Your task to perform on an android device: Open Google Chrome and click the shortcut for Amazon.com Image 0: 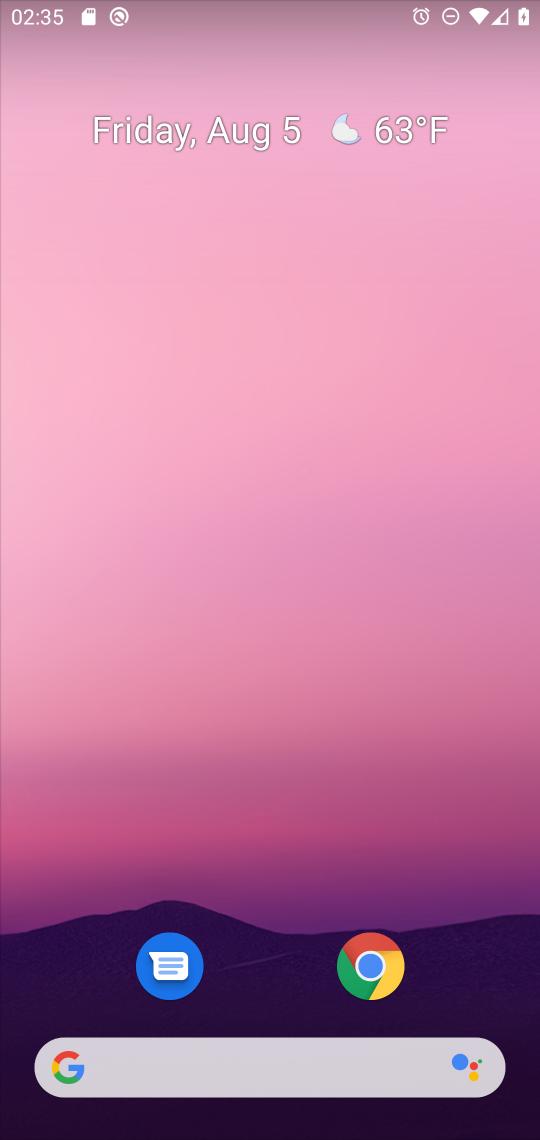
Step 0: click (362, 961)
Your task to perform on an android device: Open Google Chrome and click the shortcut for Amazon.com Image 1: 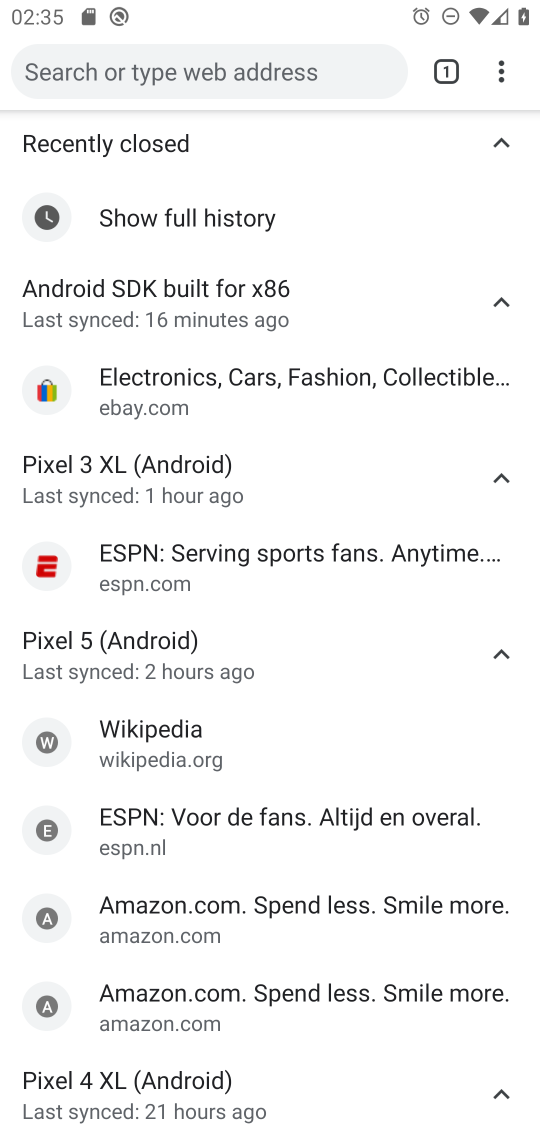
Step 1: click (501, 61)
Your task to perform on an android device: Open Google Chrome and click the shortcut for Amazon.com Image 2: 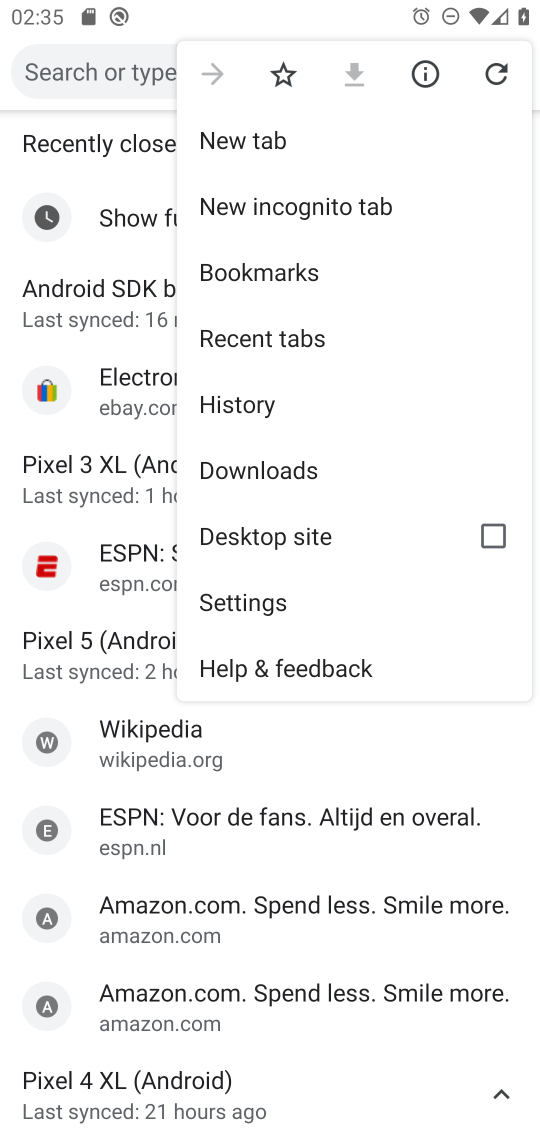
Step 2: click (317, 132)
Your task to perform on an android device: Open Google Chrome and click the shortcut for Amazon.com Image 3: 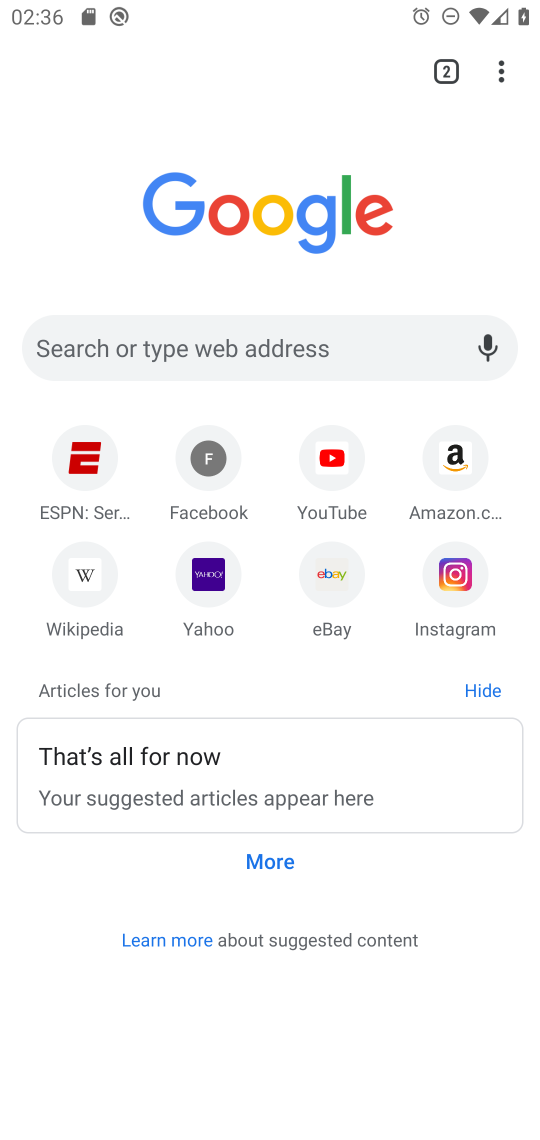
Step 3: click (455, 455)
Your task to perform on an android device: Open Google Chrome and click the shortcut for Amazon.com Image 4: 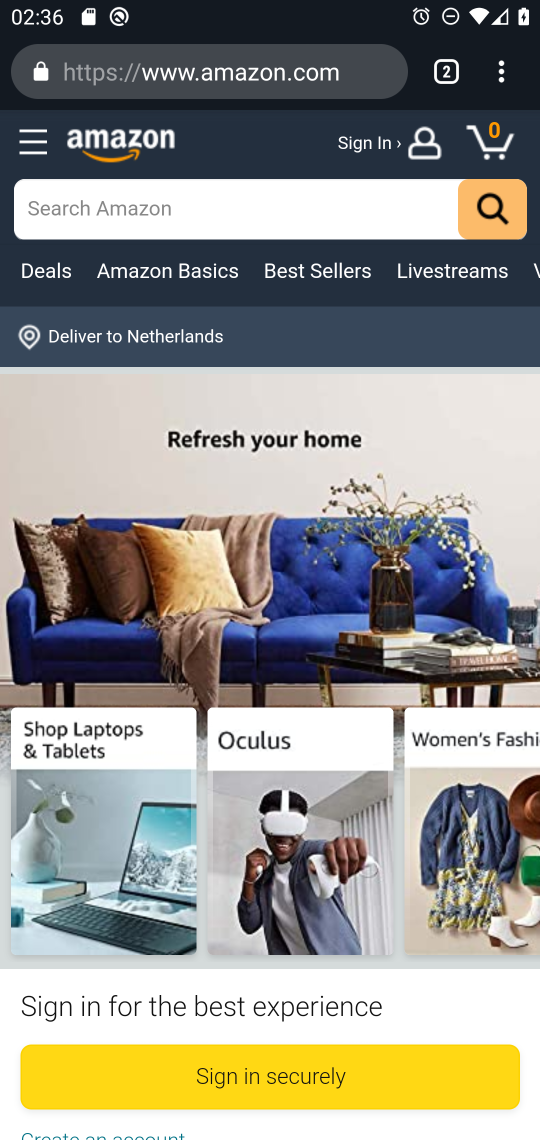
Step 4: task complete